Your task to perform on an android device: Add macbook pro 15 inch to the cart on target Image 0: 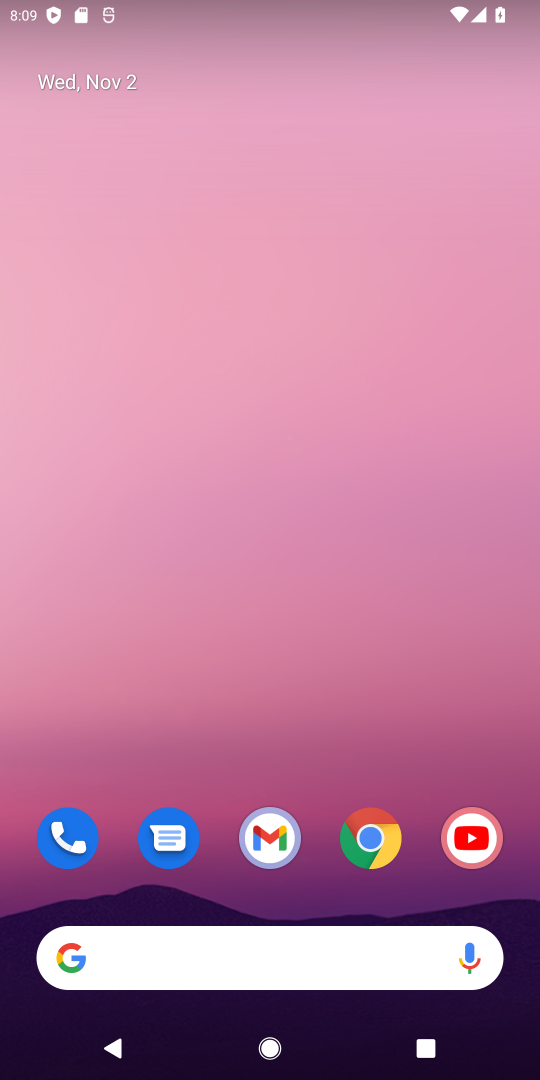
Step 0: click (378, 858)
Your task to perform on an android device: Add macbook pro 15 inch to the cart on target Image 1: 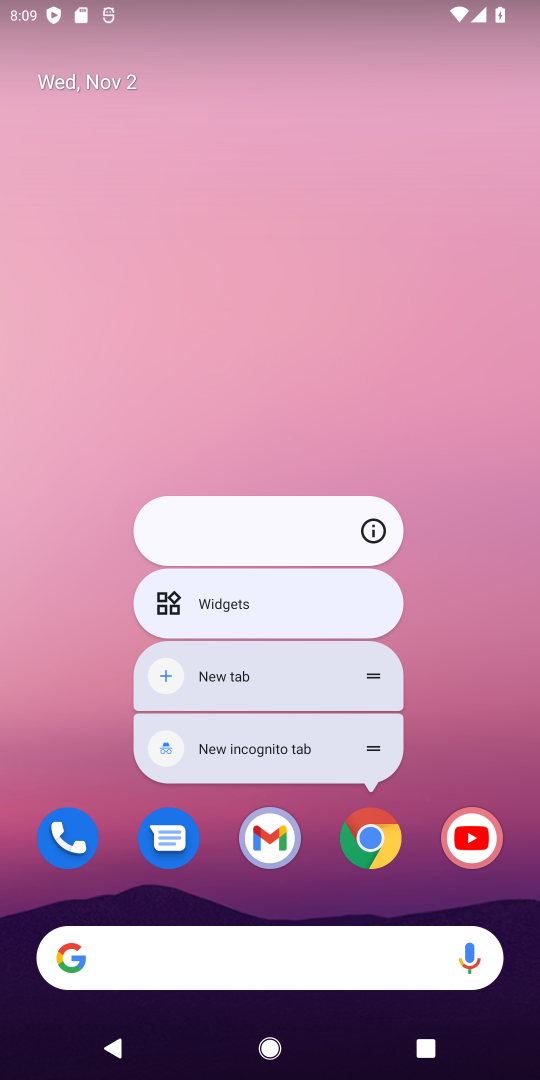
Step 1: click (386, 845)
Your task to perform on an android device: Add macbook pro 15 inch to the cart on target Image 2: 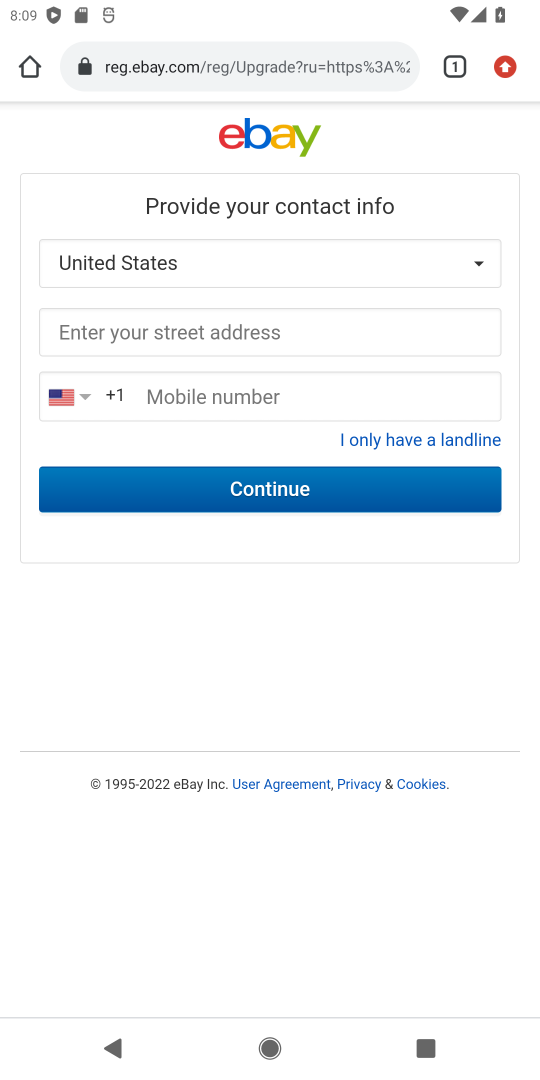
Step 2: click (327, 71)
Your task to perform on an android device: Add macbook pro 15 inch to the cart on target Image 3: 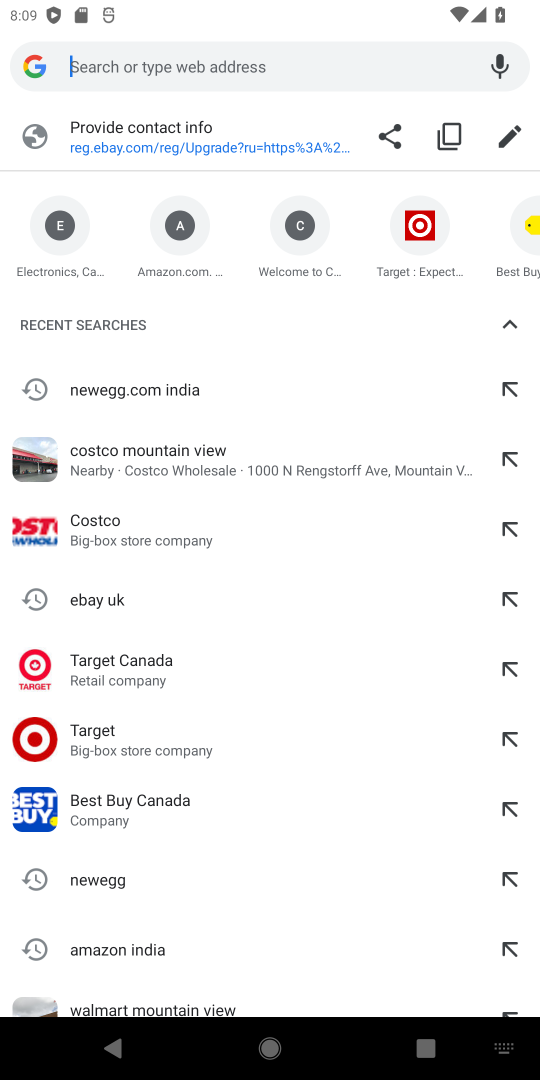
Step 3: type "target"
Your task to perform on an android device: Add macbook pro 15 inch to the cart on target Image 4: 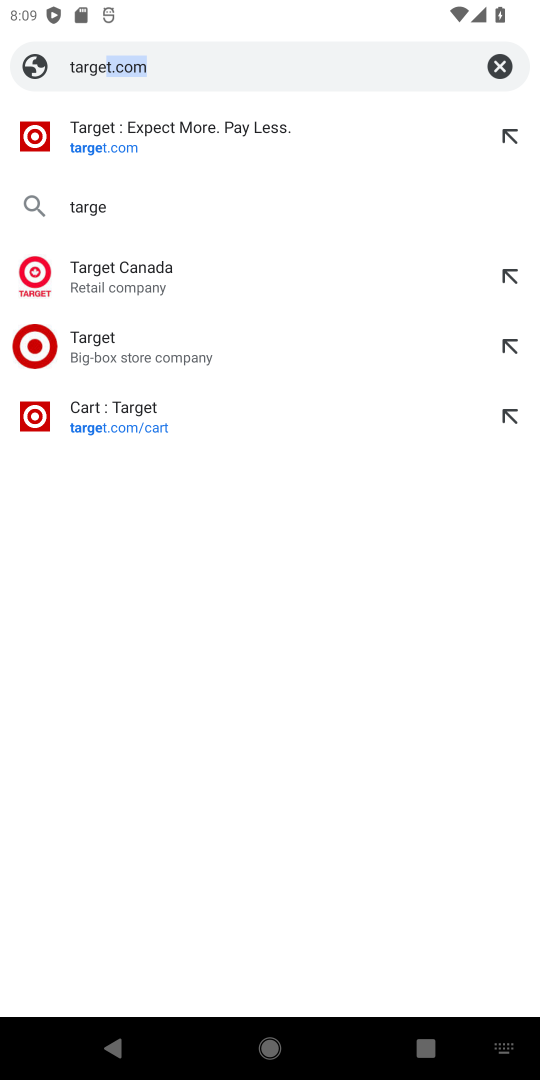
Step 4: type ""
Your task to perform on an android device: Add macbook pro 15 inch to the cart on target Image 5: 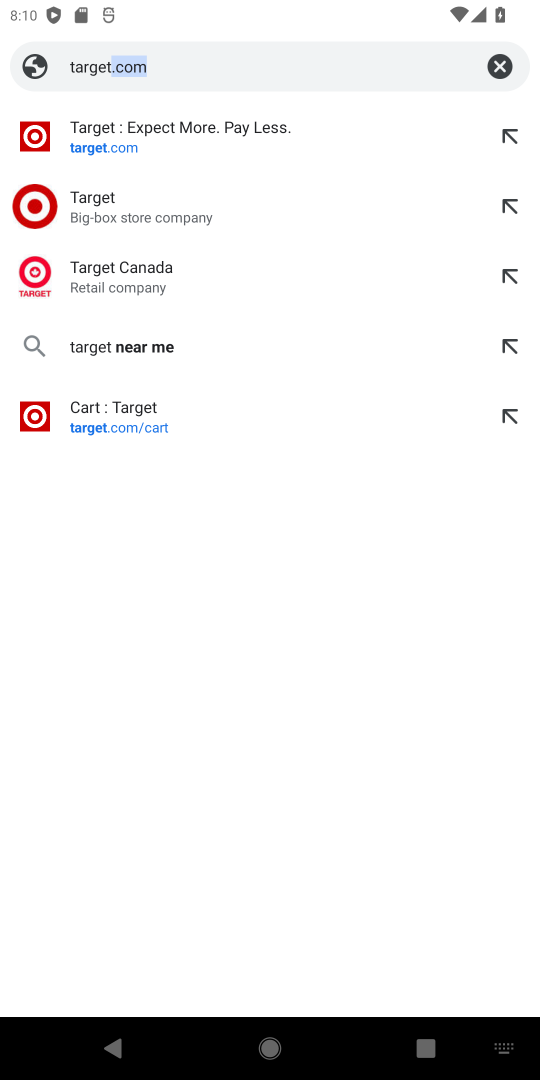
Step 5: press enter
Your task to perform on an android device: Add macbook pro 15 inch to the cart on target Image 6: 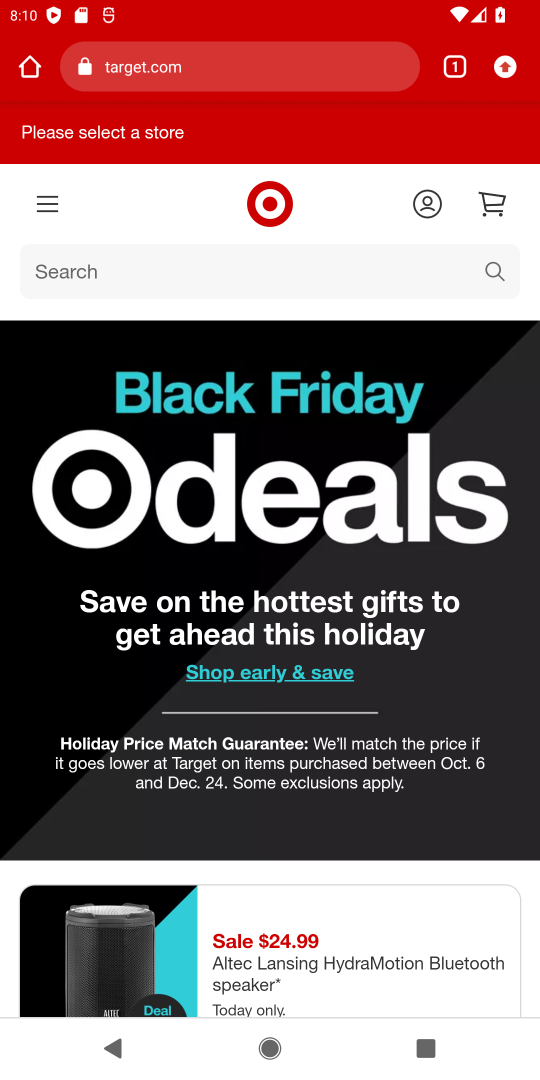
Step 6: click (256, 287)
Your task to perform on an android device: Add macbook pro 15 inch to the cart on target Image 7: 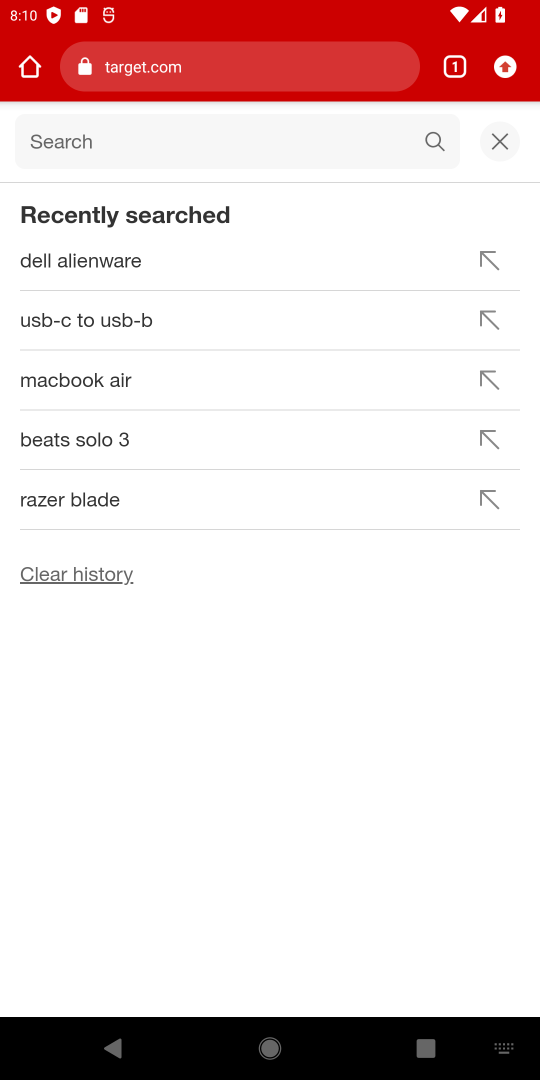
Step 7: type "macbook pro 15 inch"
Your task to perform on an android device: Add macbook pro 15 inch to the cart on target Image 8: 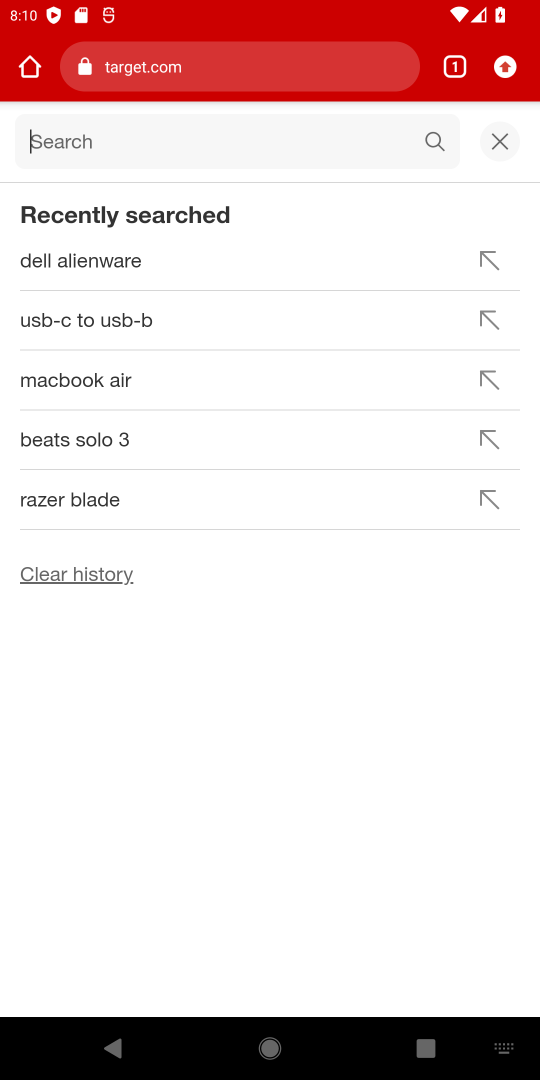
Step 8: type ""
Your task to perform on an android device: Add macbook pro 15 inch to the cart on target Image 9: 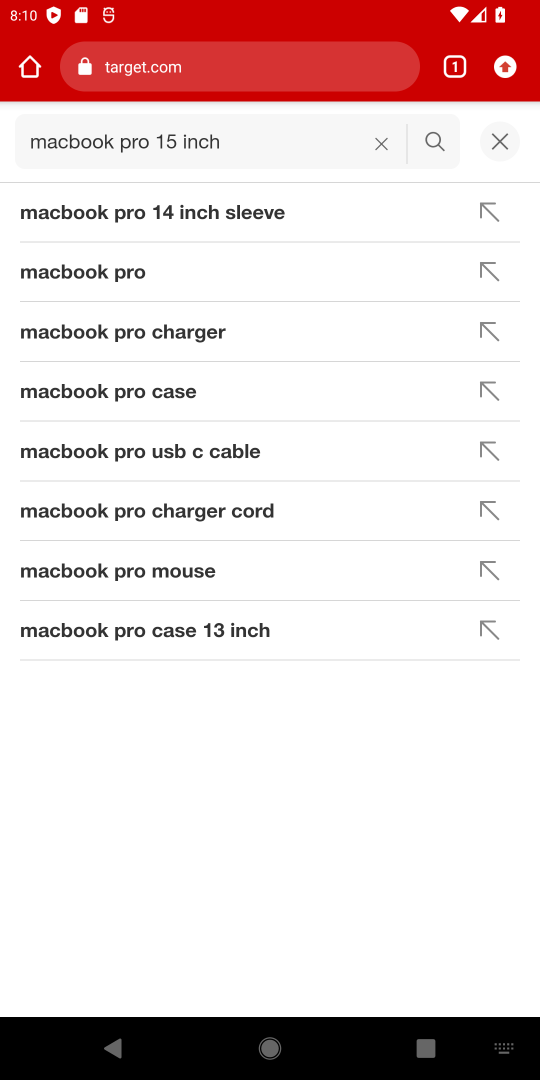
Step 9: press enter
Your task to perform on an android device: Add macbook pro 15 inch to the cart on target Image 10: 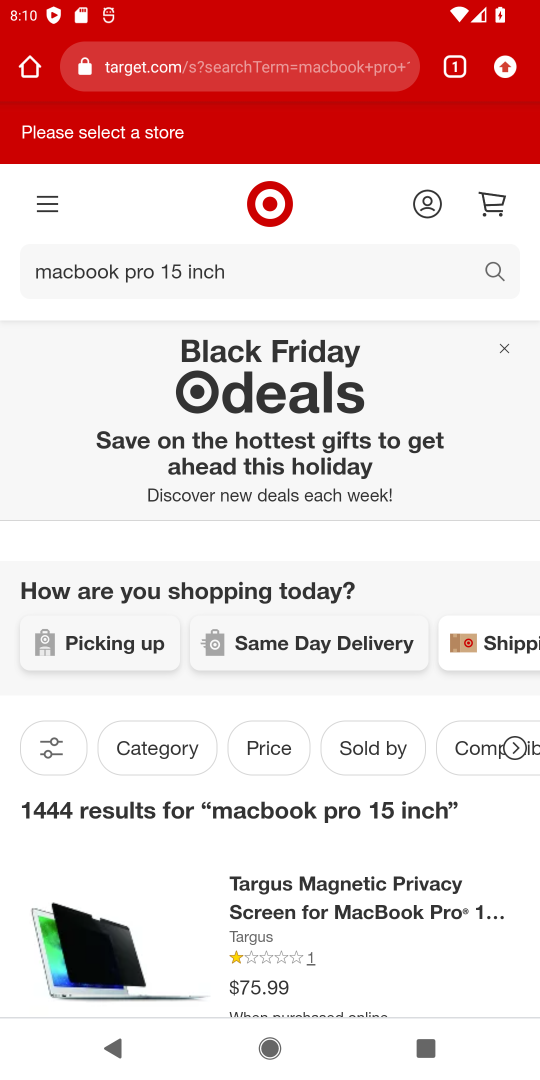
Step 10: drag from (397, 935) to (365, 629)
Your task to perform on an android device: Add macbook pro 15 inch to the cart on target Image 11: 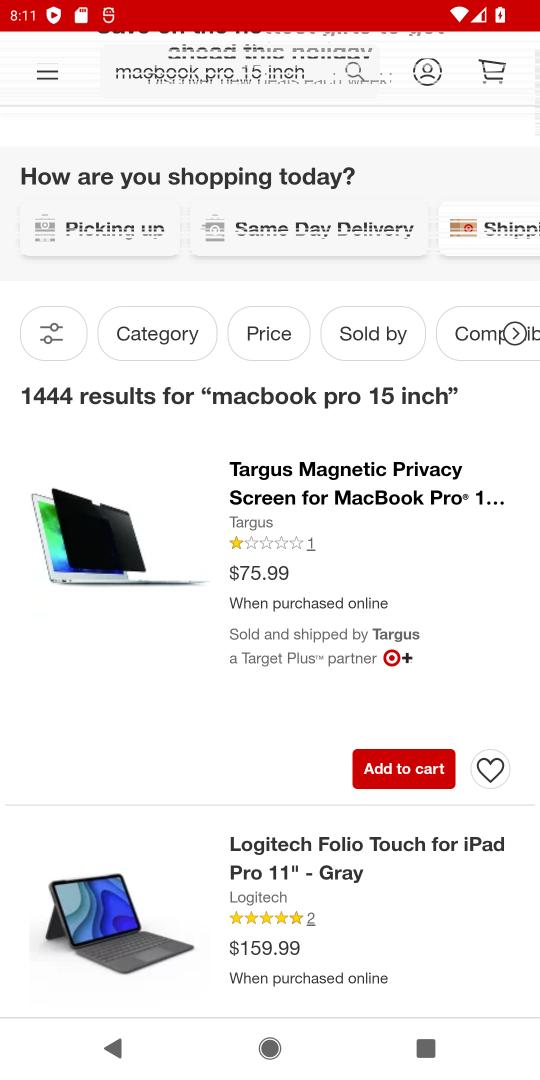
Step 11: click (385, 484)
Your task to perform on an android device: Add macbook pro 15 inch to the cart on target Image 12: 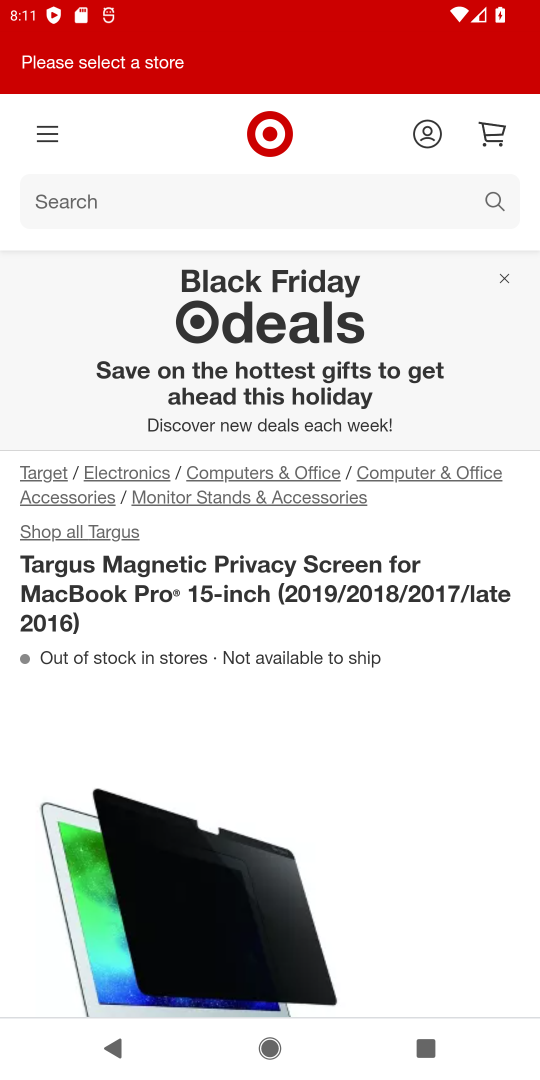
Step 12: drag from (412, 980) to (451, 355)
Your task to perform on an android device: Add macbook pro 15 inch to the cart on target Image 13: 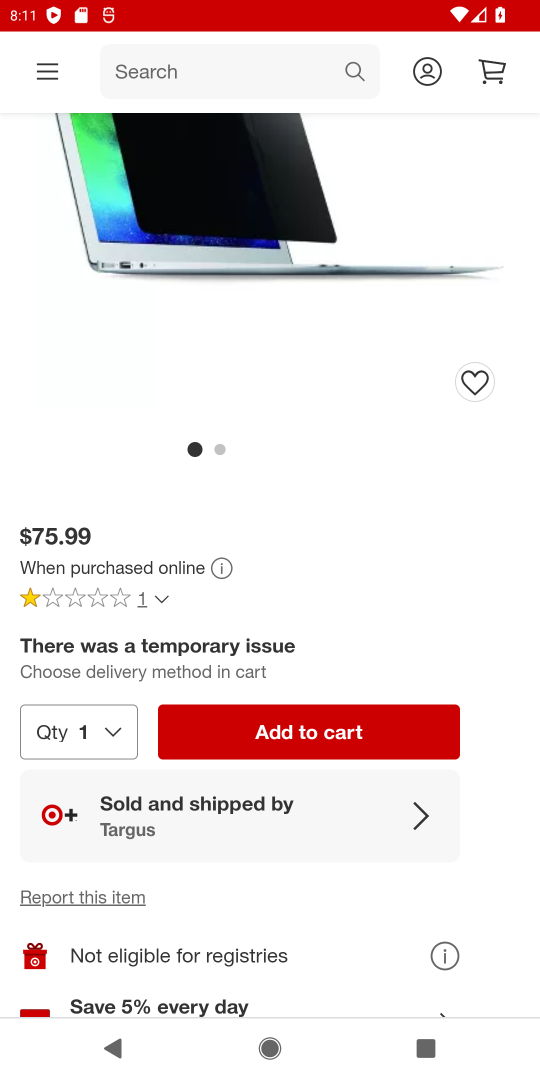
Step 13: click (348, 739)
Your task to perform on an android device: Add macbook pro 15 inch to the cart on target Image 14: 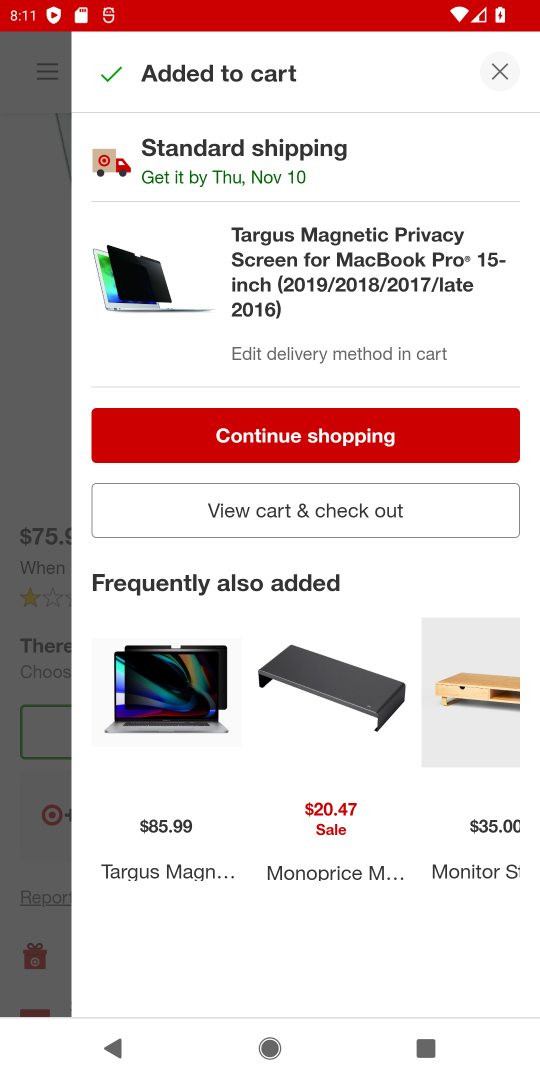
Step 14: click (417, 514)
Your task to perform on an android device: Add macbook pro 15 inch to the cart on target Image 15: 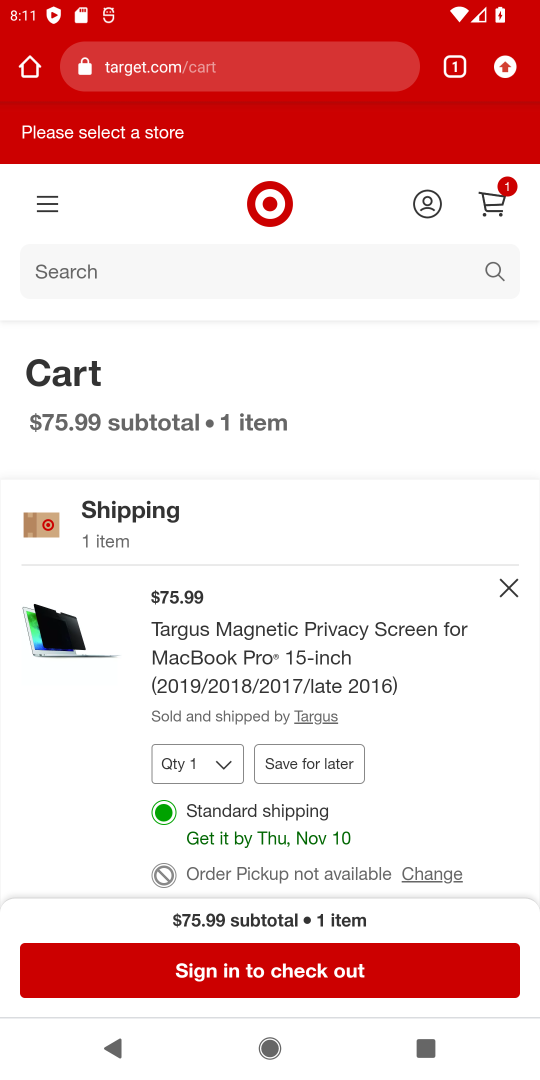
Step 15: click (395, 970)
Your task to perform on an android device: Add macbook pro 15 inch to the cart on target Image 16: 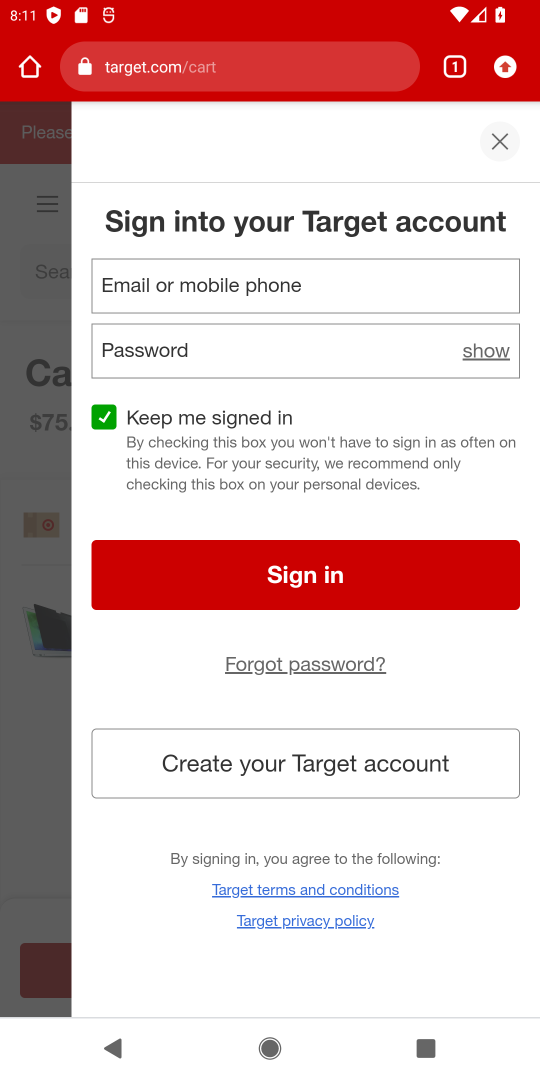
Step 16: task complete